Your task to perform on an android device: Open the web browser Image 0: 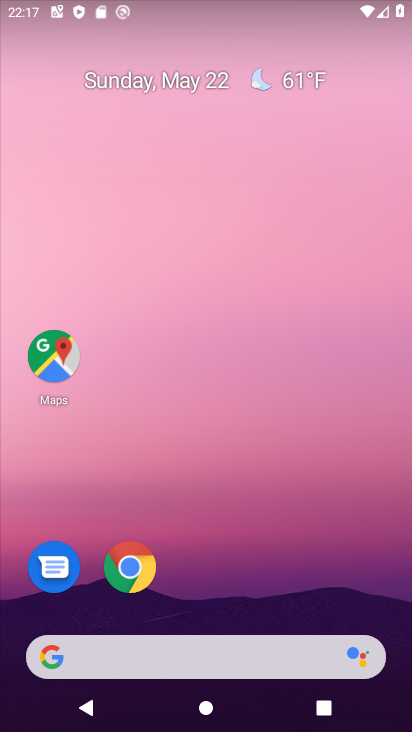
Step 0: click (137, 637)
Your task to perform on an android device: Open the web browser Image 1: 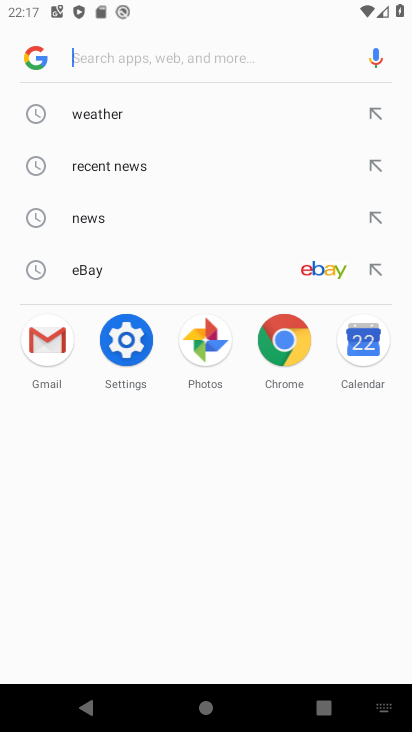
Step 1: task complete